Your task to perform on an android device: turn on location history Image 0: 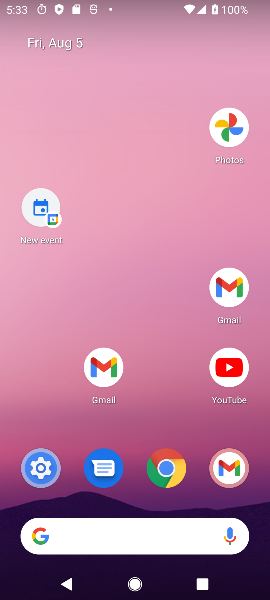
Step 0: drag from (160, 549) to (101, 153)
Your task to perform on an android device: turn on location history Image 1: 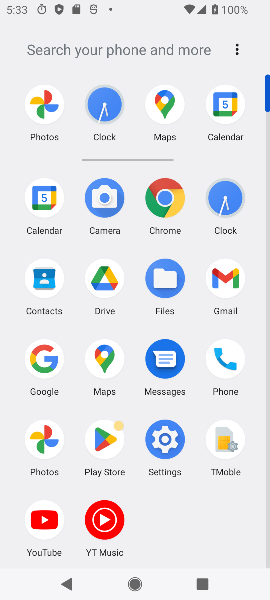
Step 1: drag from (147, 404) to (141, 203)
Your task to perform on an android device: turn on location history Image 2: 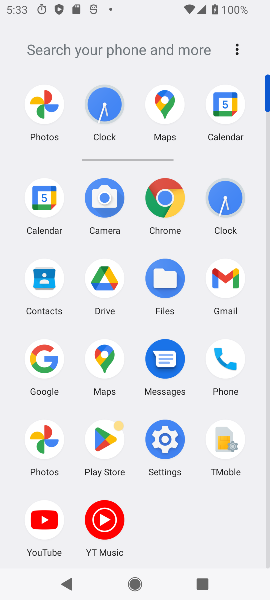
Step 2: drag from (135, 366) to (130, 88)
Your task to perform on an android device: turn on location history Image 3: 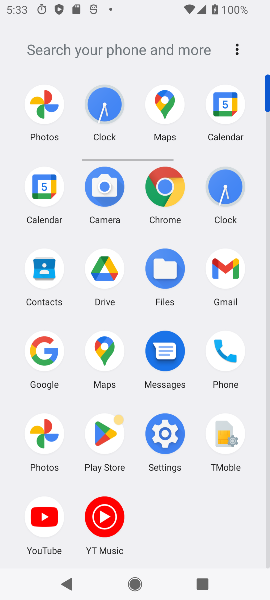
Step 3: drag from (134, 404) to (134, 98)
Your task to perform on an android device: turn on location history Image 4: 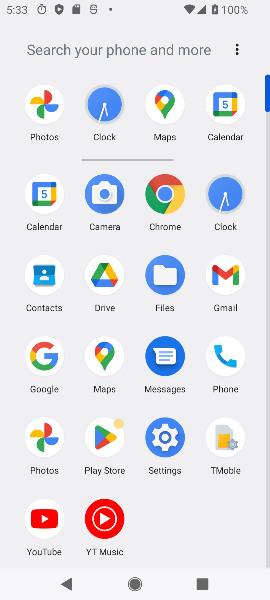
Step 4: drag from (158, 356) to (138, 94)
Your task to perform on an android device: turn on location history Image 5: 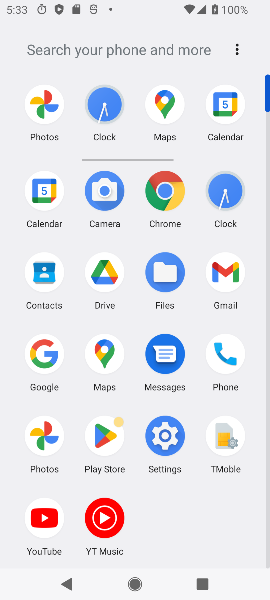
Step 5: drag from (127, 341) to (103, 130)
Your task to perform on an android device: turn on location history Image 6: 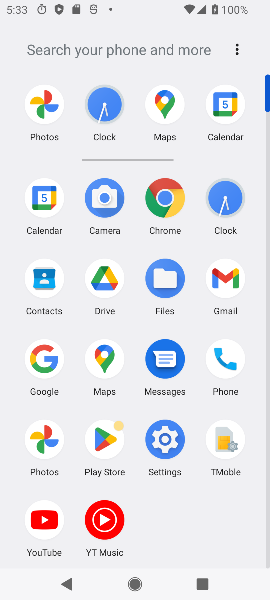
Step 6: click (162, 439)
Your task to perform on an android device: turn on location history Image 7: 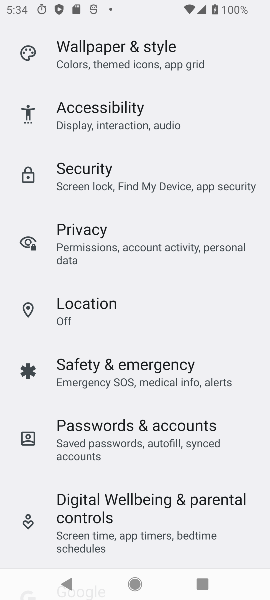
Step 7: click (84, 308)
Your task to perform on an android device: turn on location history Image 8: 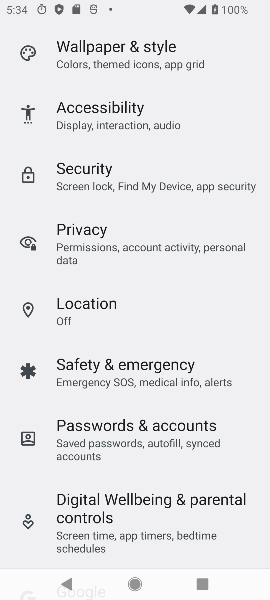
Step 8: click (86, 310)
Your task to perform on an android device: turn on location history Image 9: 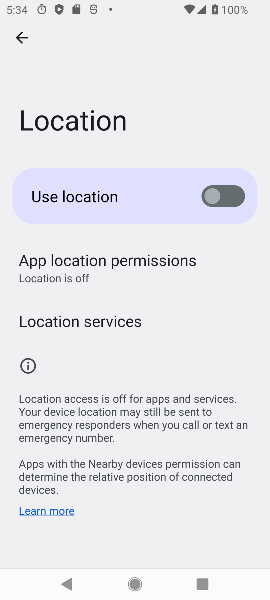
Step 9: click (63, 318)
Your task to perform on an android device: turn on location history Image 10: 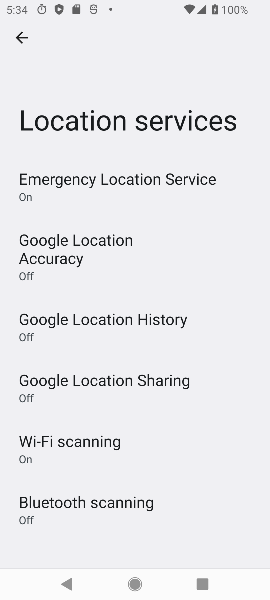
Step 10: click (96, 323)
Your task to perform on an android device: turn on location history Image 11: 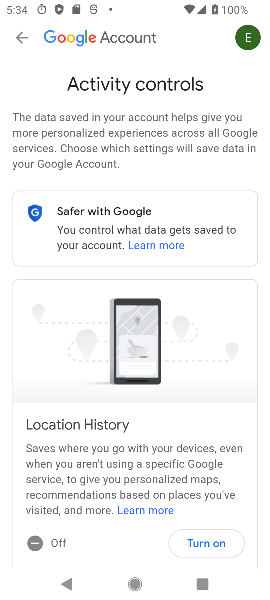
Step 11: task complete